Your task to perform on an android device: Go to calendar. Show me events next week Image 0: 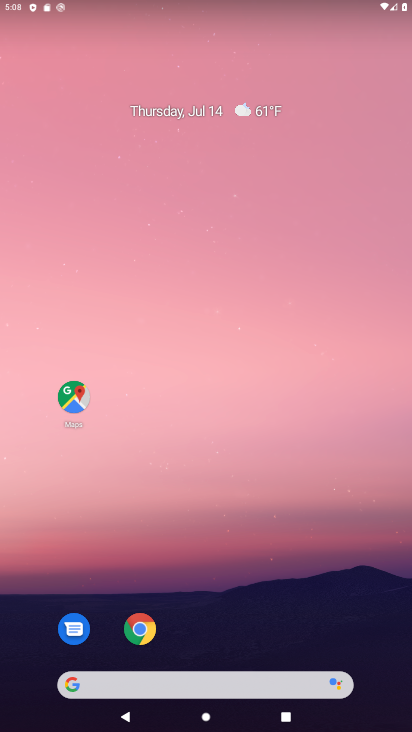
Step 0: drag from (234, 627) to (189, 11)
Your task to perform on an android device: Go to calendar. Show me events next week Image 1: 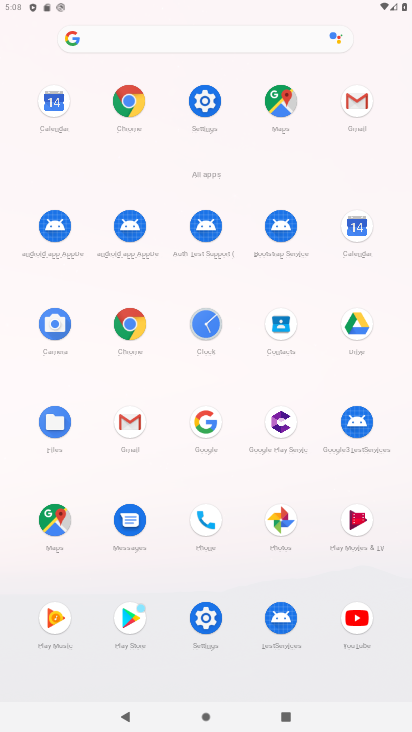
Step 1: click (357, 207)
Your task to perform on an android device: Go to calendar. Show me events next week Image 2: 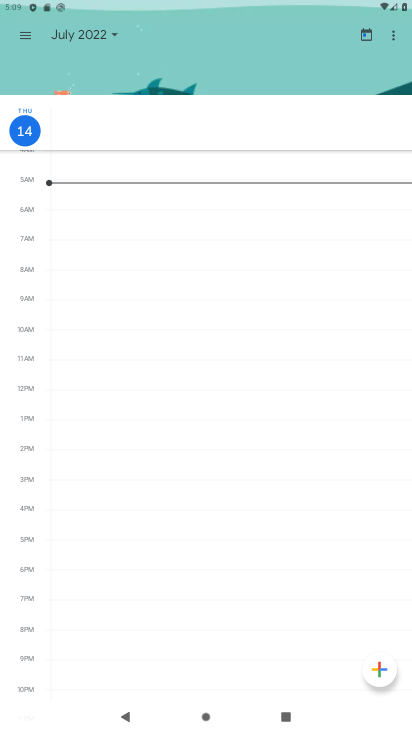
Step 2: click (74, 32)
Your task to perform on an android device: Go to calendar. Show me events next week Image 3: 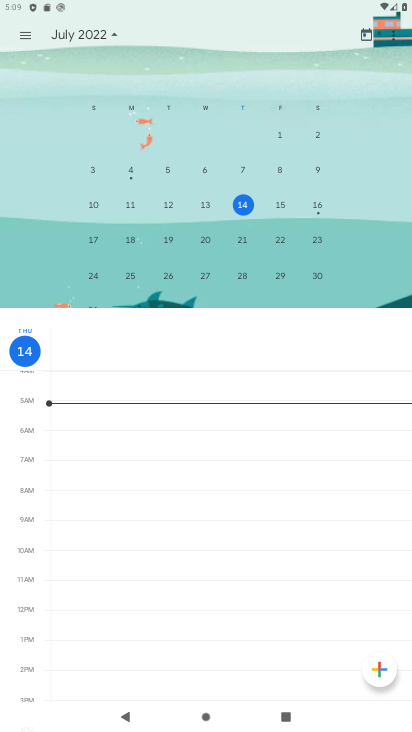
Step 3: click (245, 195)
Your task to perform on an android device: Go to calendar. Show me events next week Image 4: 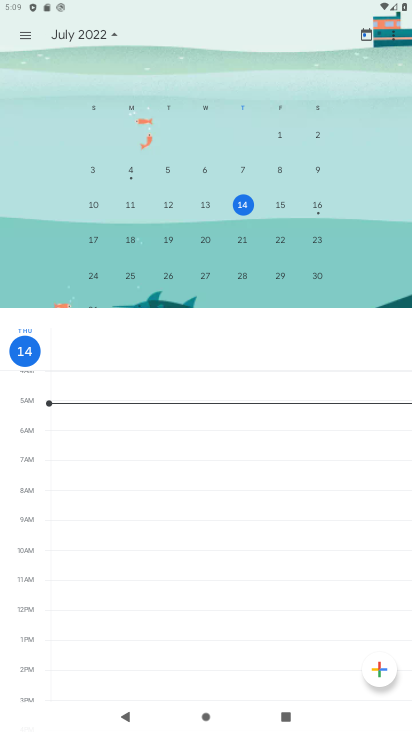
Step 4: click (277, 194)
Your task to perform on an android device: Go to calendar. Show me events next week Image 5: 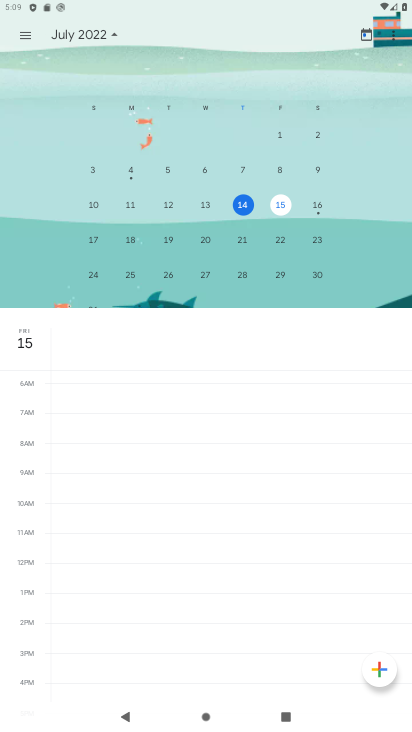
Step 5: click (33, 36)
Your task to perform on an android device: Go to calendar. Show me events next week Image 6: 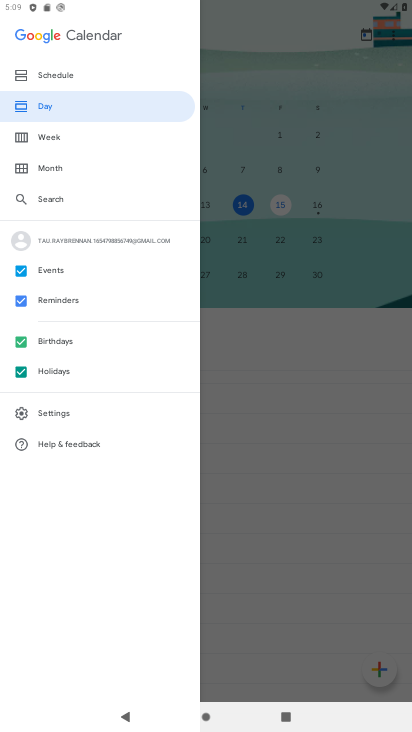
Step 6: click (51, 76)
Your task to perform on an android device: Go to calendar. Show me events next week Image 7: 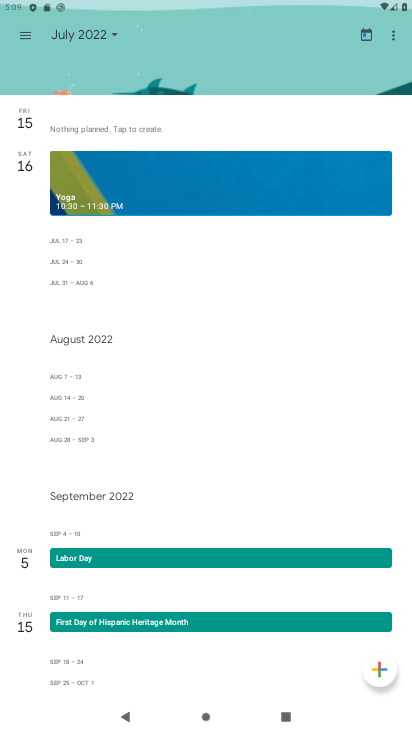
Step 7: task complete